Your task to perform on an android device: Search for hotels in Chicago Image 0: 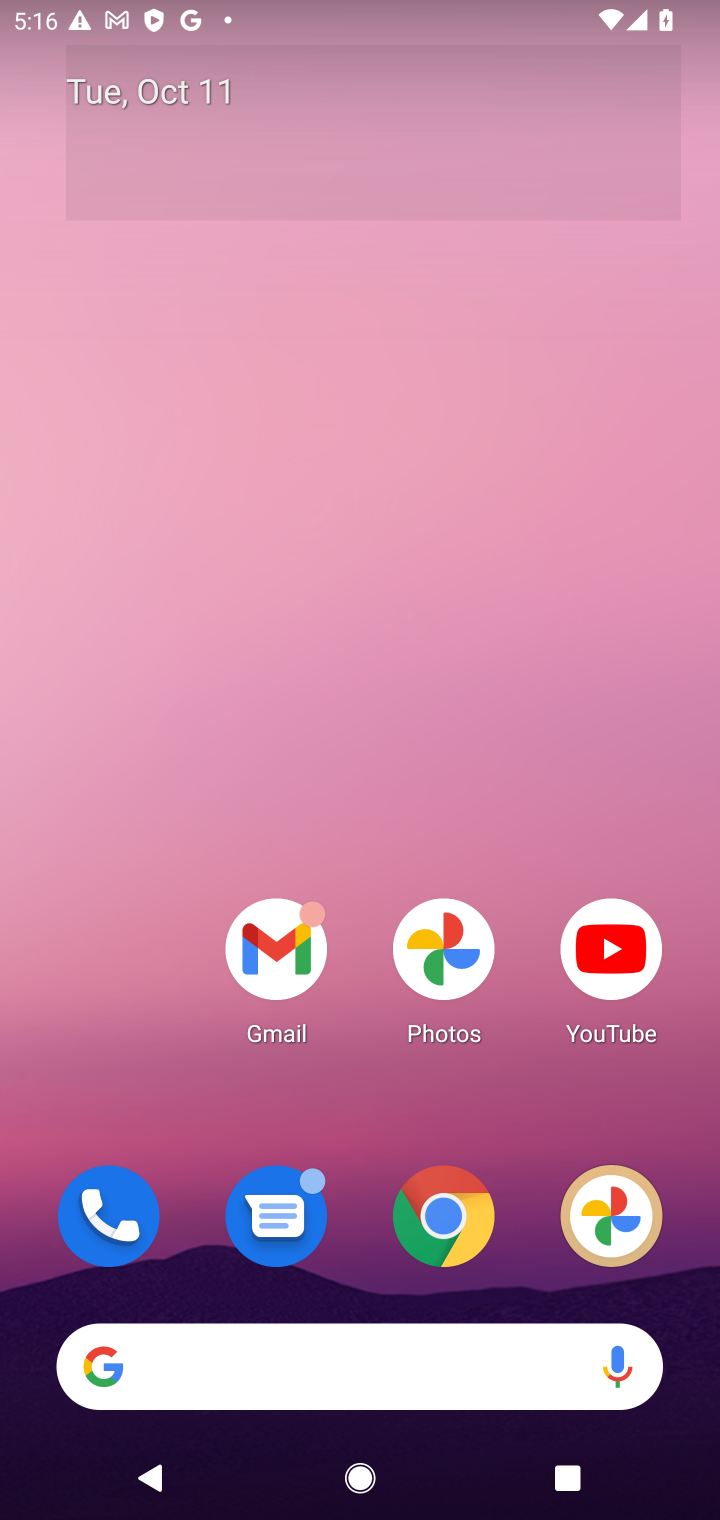
Step 0: click (434, 1223)
Your task to perform on an android device: Search for hotels in Chicago Image 1: 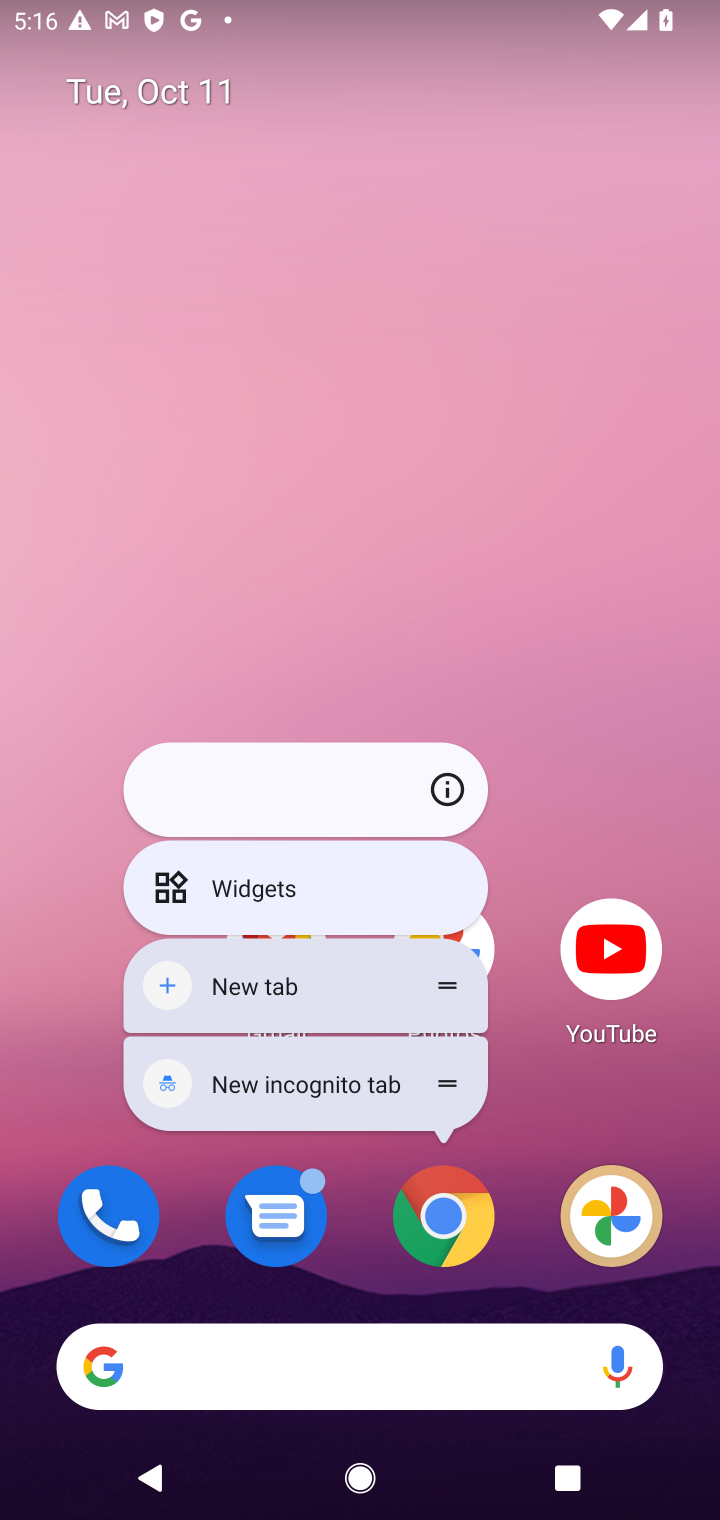
Step 1: click (434, 1223)
Your task to perform on an android device: Search for hotels in Chicago Image 2: 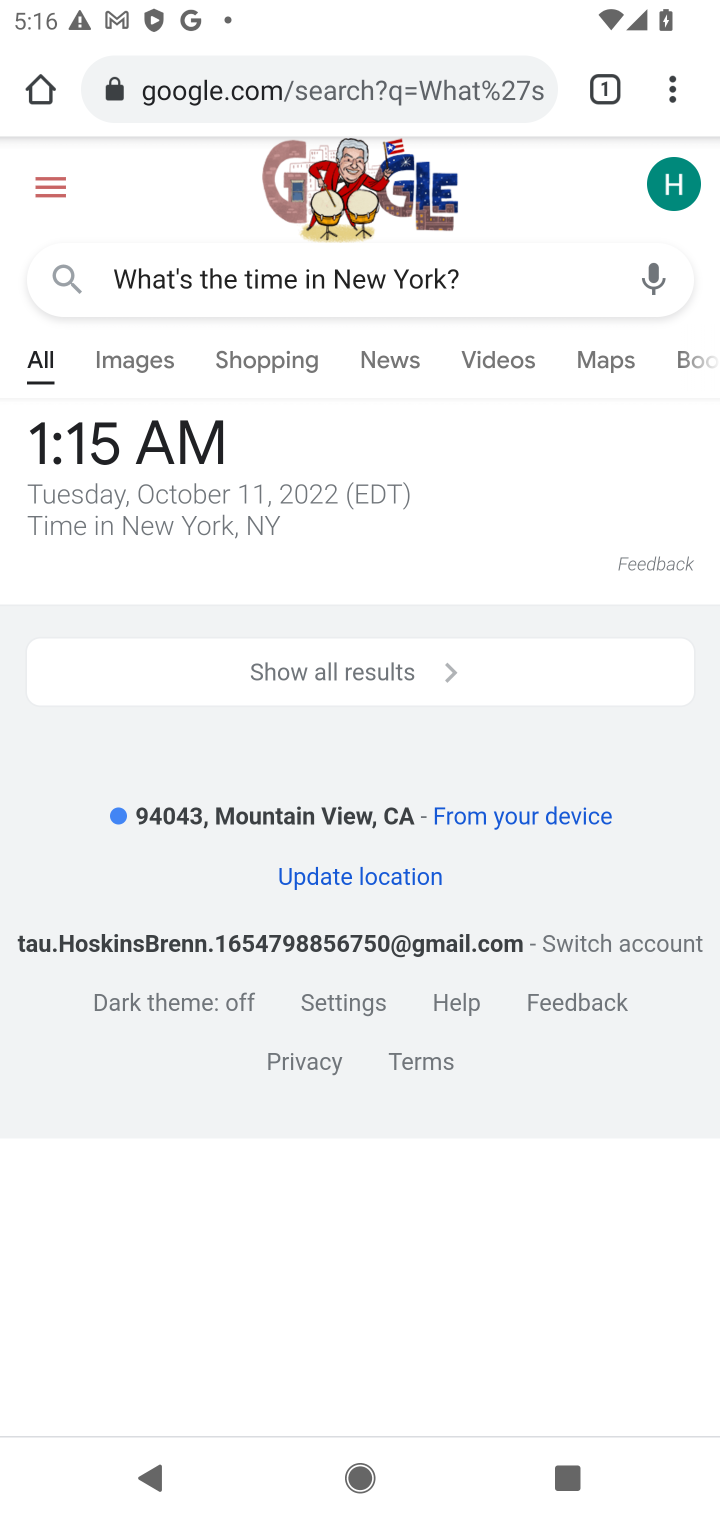
Step 2: click (459, 284)
Your task to perform on an android device: Search for hotels in Chicago Image 3: 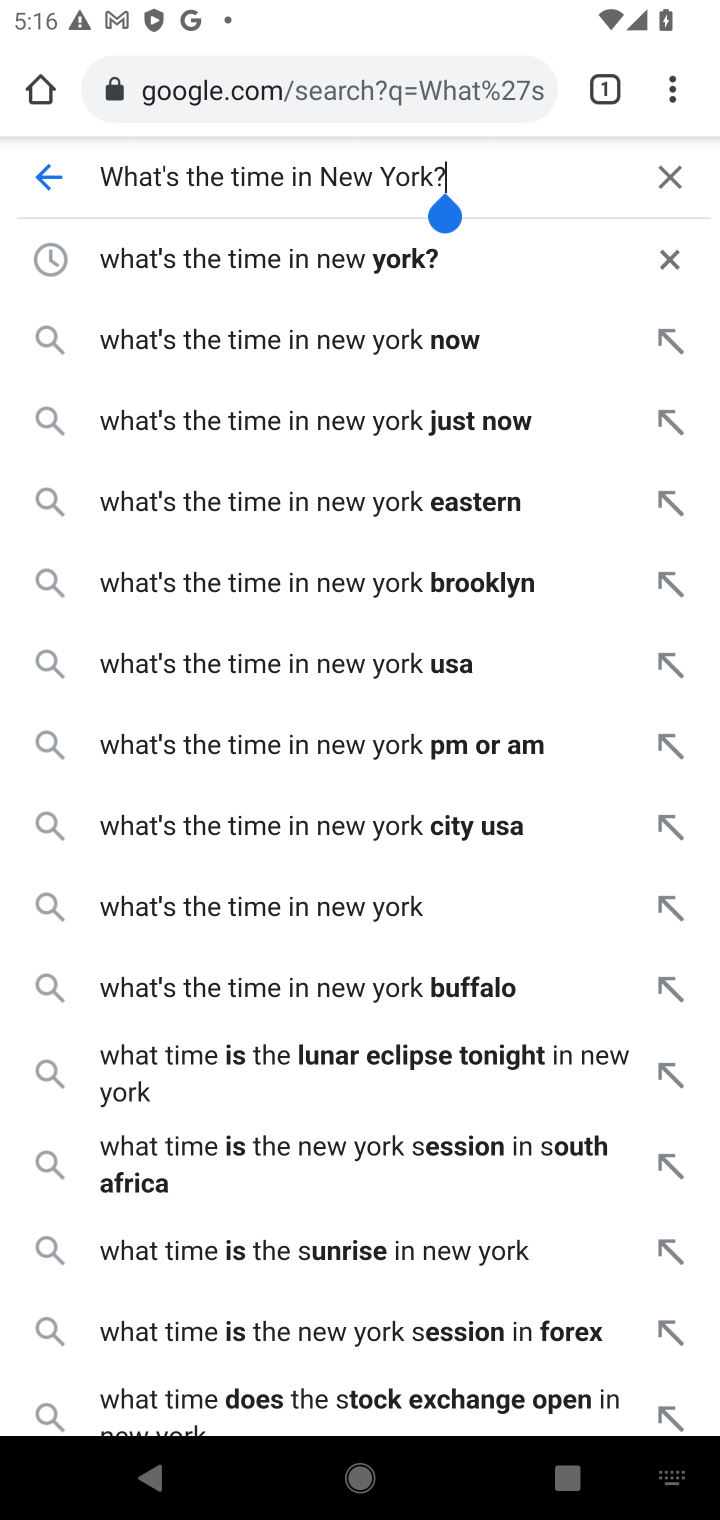
Step 3: click (672, 168)
Your task to perform on an android device: Search for hotels in Chicago Image 4: 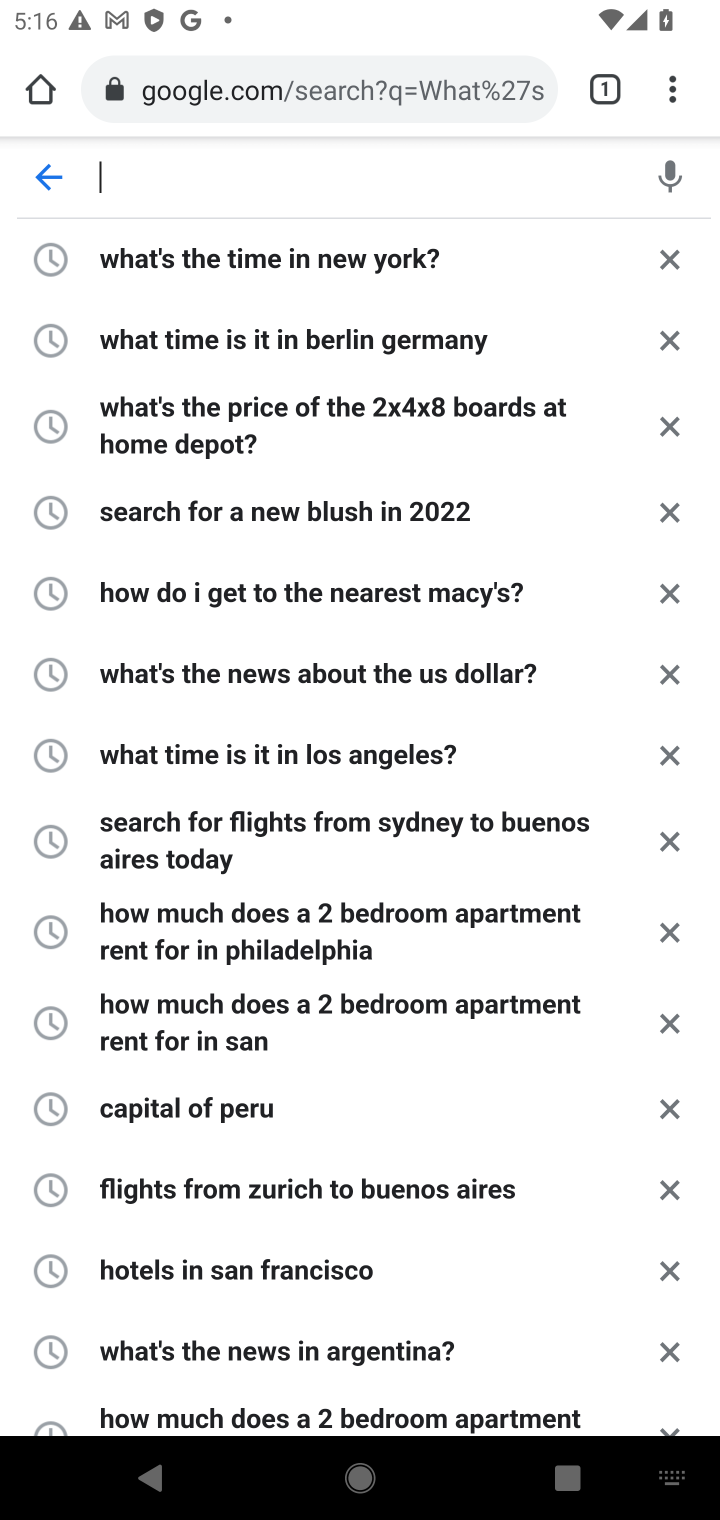
Step 4: type "Search for hotels in Chicago"
Your task to perform on an android device: Search for hotels in Chicago Image 5: 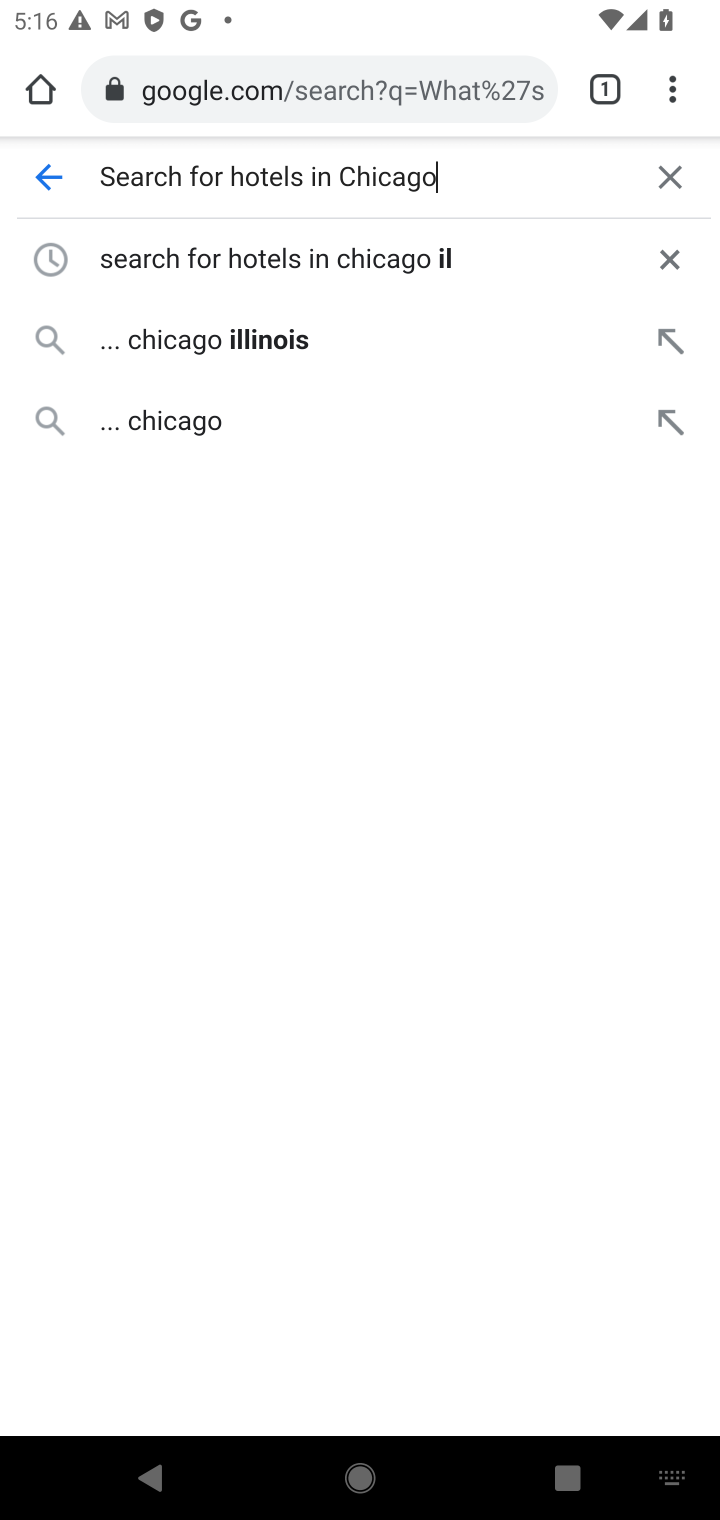
Step 5: press enter
Your task to perform on an android device: Search for hotels in Chicago Image 6: 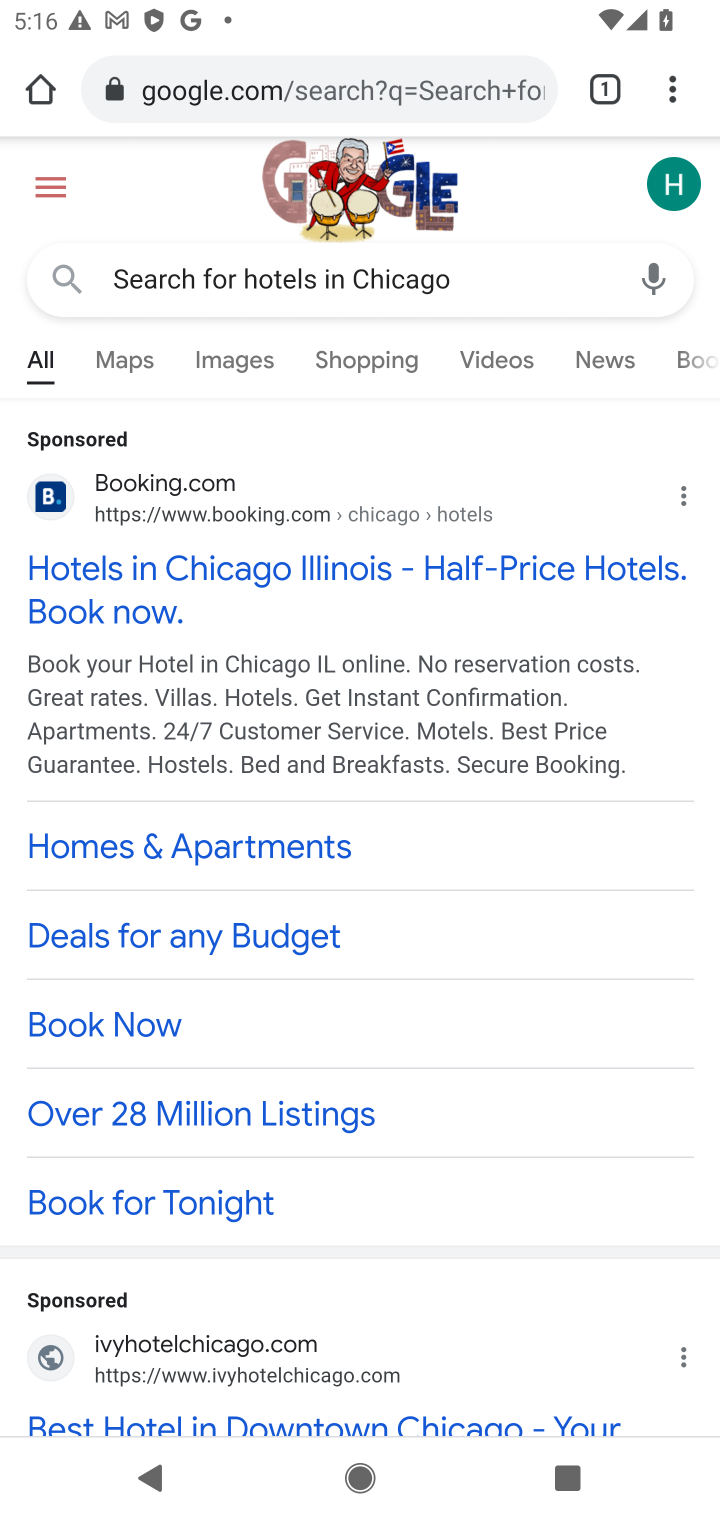
Step 6: task complete